Your task to perform on an android device: Open Chrome and go to the settings page Image 0: 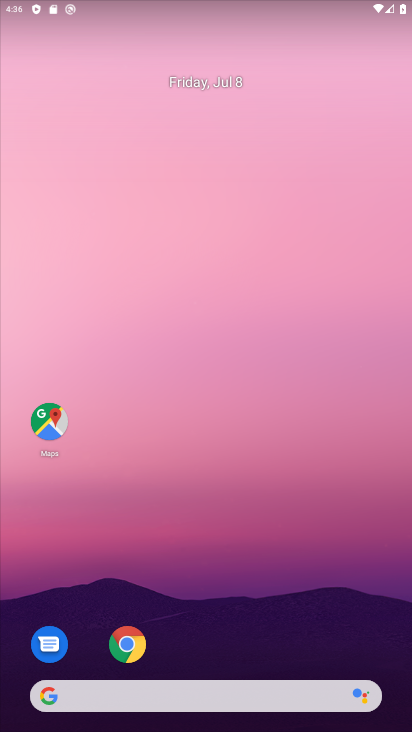
Step 0: press home button
Your task to perform on an android device: Open Chrome and go to the settings page Image 1: 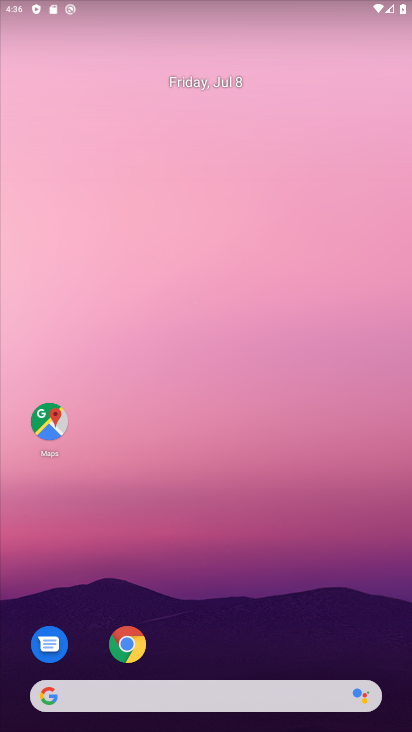
Step 1: drag from (294, 607) to (283, 148)
Your task to perform on an android device: Open Chrome and go to the settings page Image 2: 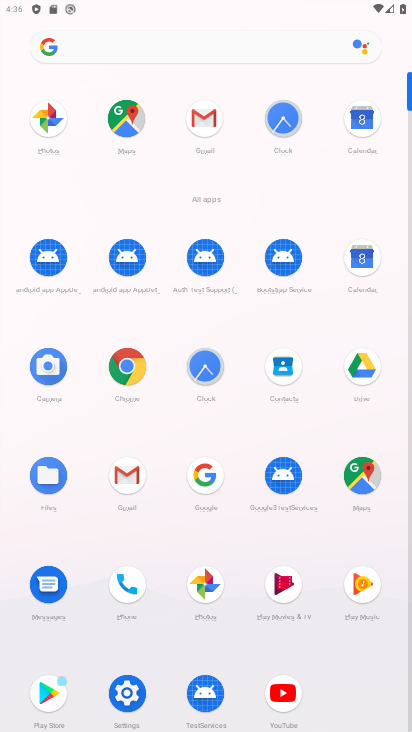
Step 2: click (127, 365)
Your task to perform on an android device: Open Chrome and go to the settings page Image 3: 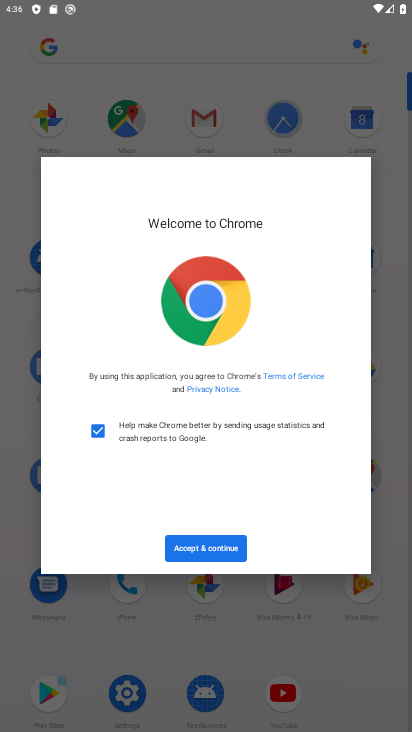
Step 3: click (210, 555)
Your task to perform on an android device: Open Chrome and go to the settings page Image 4: 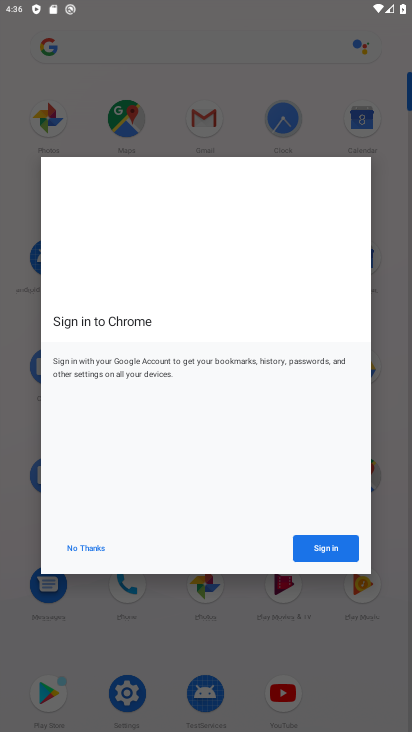
Step 4: click (100, 549)
Your task to perform on an android device: Open Chrome and go to the settings page Image 5: 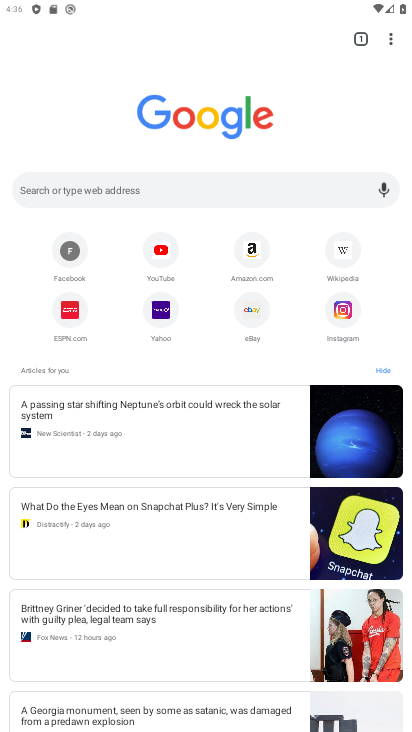
Step 5: task complete